Your task to perform on an android device: Open wifi settings Image 0: 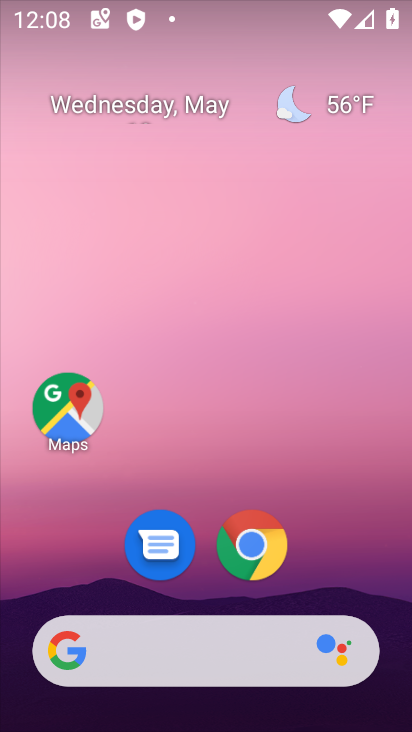
Step 0: drag from (189, 592) to (239, 0)
Your task to perform on an android device: Open wifi settings Image 1: 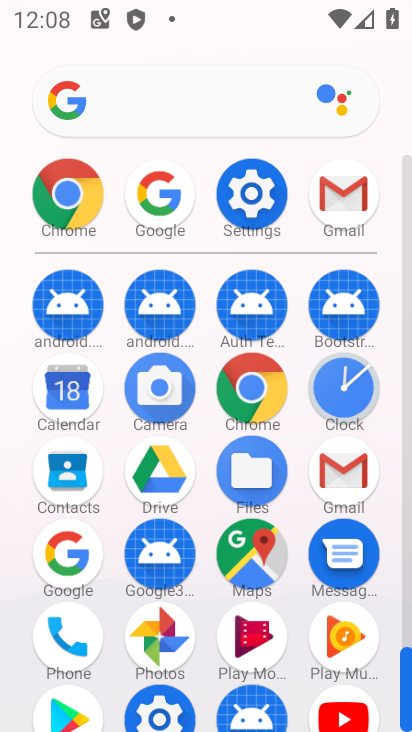
Step 1: click (263, 195)
Your task to perform on an android device: Open wifi settings Image 2: 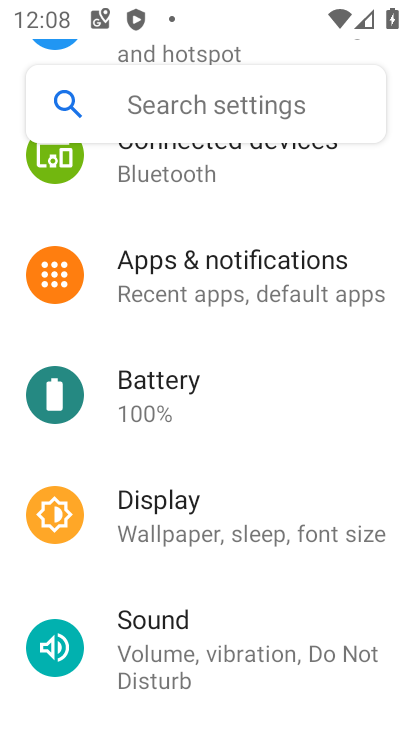
Step 2: drag from (264, 199) to (236, 578)
Your task to perform on an android device: Open wifi settings Image 3: 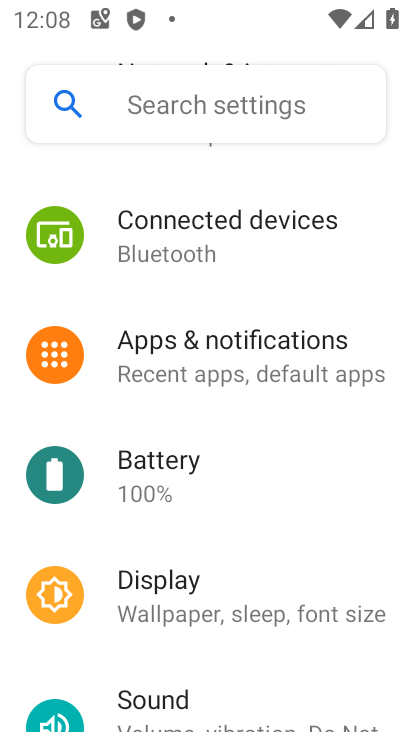
Step 3: drag from (244, 276) to (258, 731)
Your task to perform on an android device: Open wifi settings Image 4: 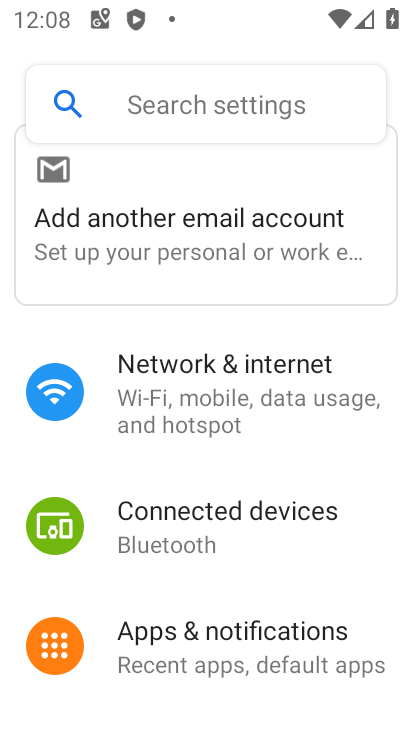
Step 4: click (248, 350)
Your task to perform on an android device: Open wifi settings Image 5: 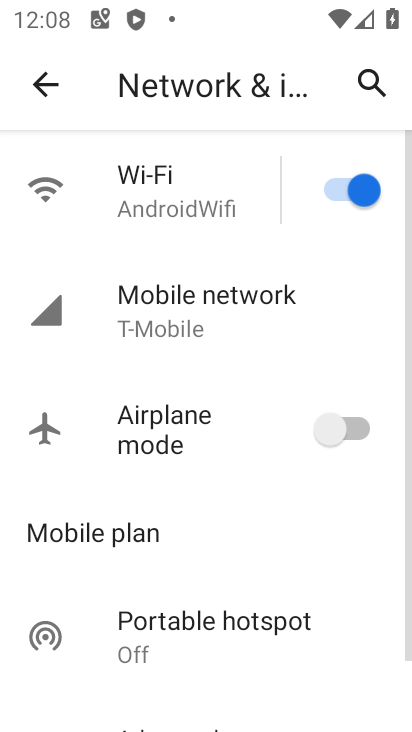
Step 5: click (195, 186)
Your task to perform on an android device: Open wifi settings Image 6: 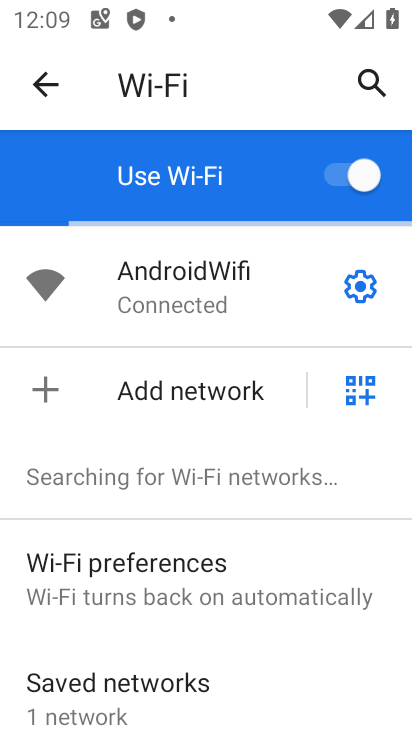
Step 6: task complete